Your task to perform on an android device: visit the assistant section in the google photos Image 0: 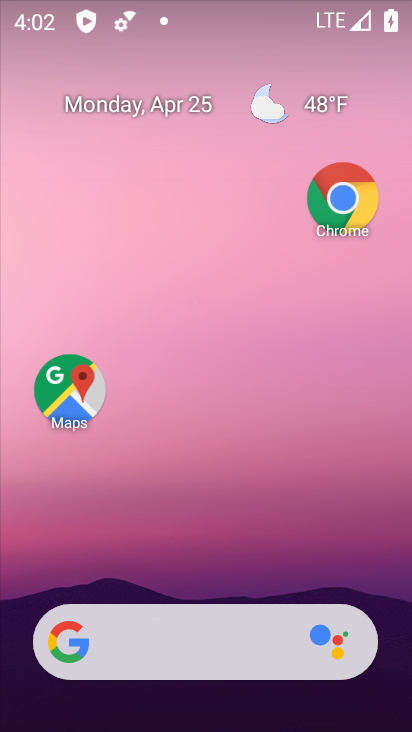
Step 0: press home button
Your task to perform on an android device: visit the assistant section in the google photos Image 1: 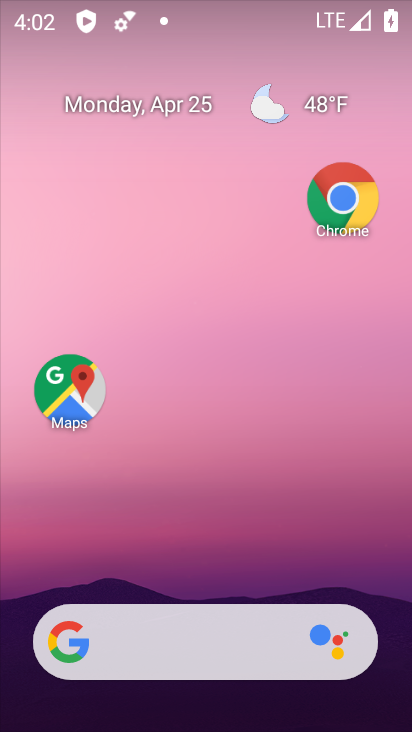
Step 1: drag from (189, 658) to (322, 247)
Your task to perform on an android device: visit the assistant section in the google photos Image 2: 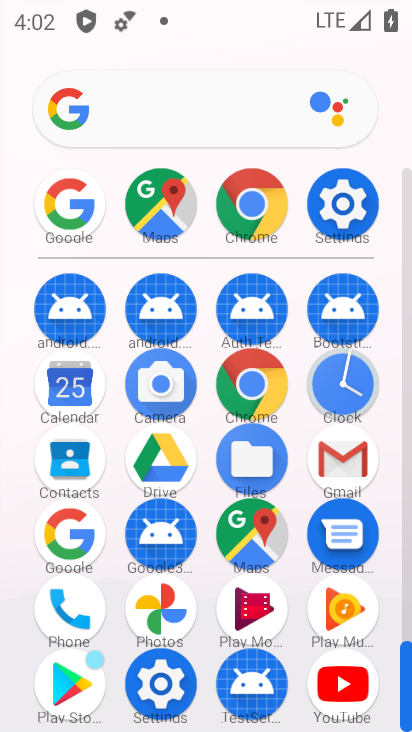
Step 2: click (162, 616)
Your task to perform on an android device: visit the assistant section in the google photos Image 3: 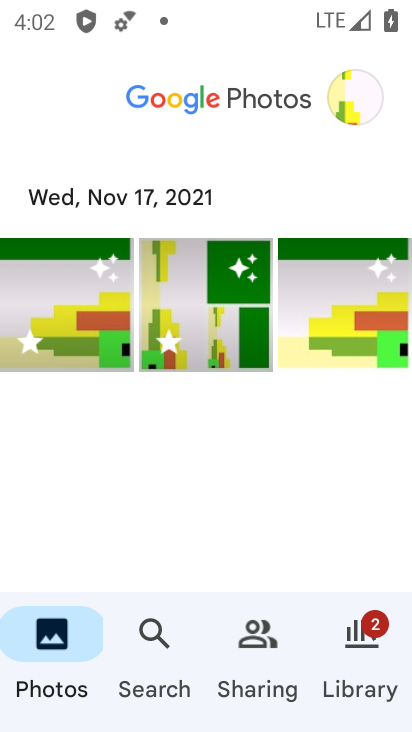
Step 3: click (374, 640)
Your task to perform on an android device: visit the assistant section in the google photos Image 4: 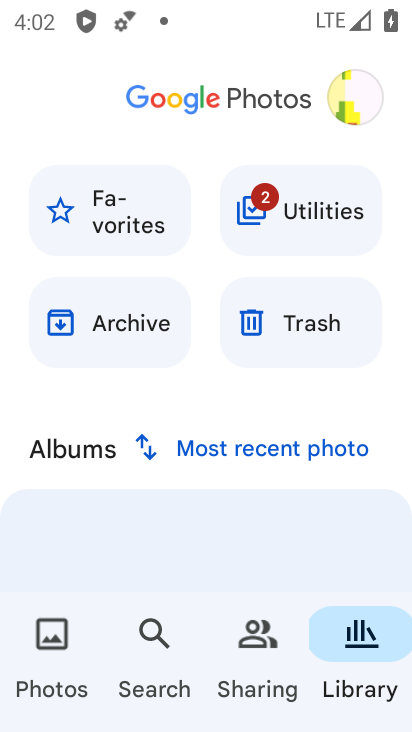
Step 4: task complete